Your task to perform on an android device: Find coffee shops on Maps Image 0: 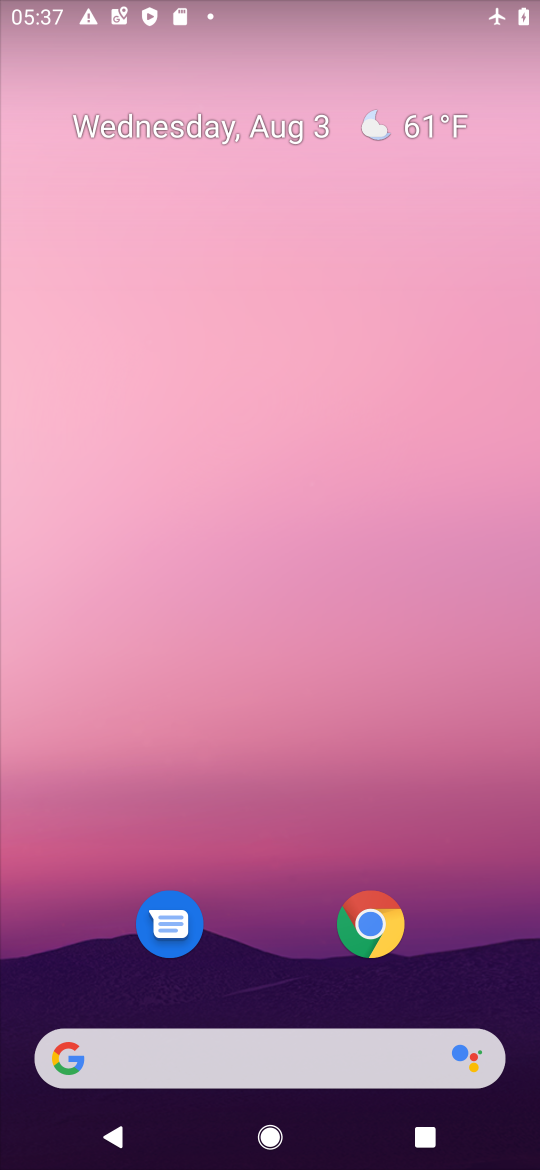
Step 0: drag from (257, 957) to (260, 469)
Your task to perform on an android device: Find coffee shops on Maps Image 1: 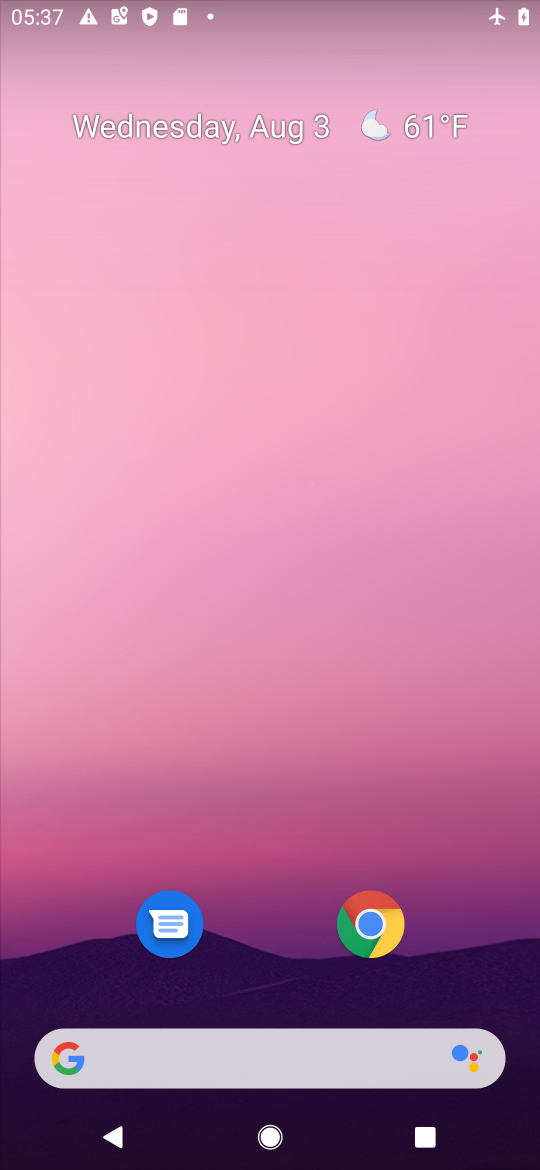
Step 1: drag from (229, 855) to (170, 250)
Your task to perform on an android device: Find coffee shops on Maps Image 2: 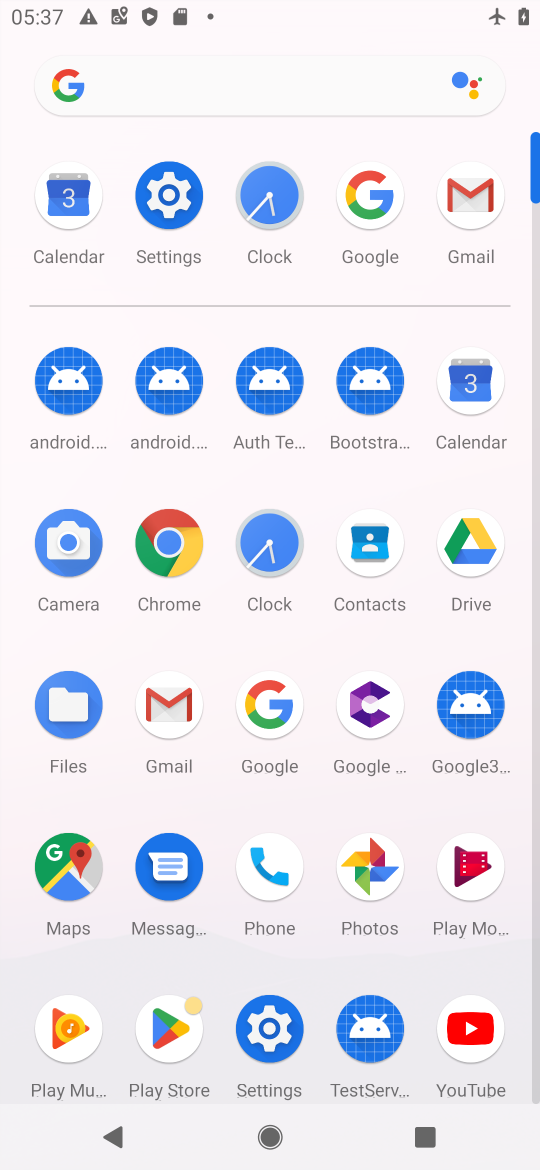
Step 2: click (52, 892)
Your task to perform on an android device: Find coffee shops on Maps Image 3: 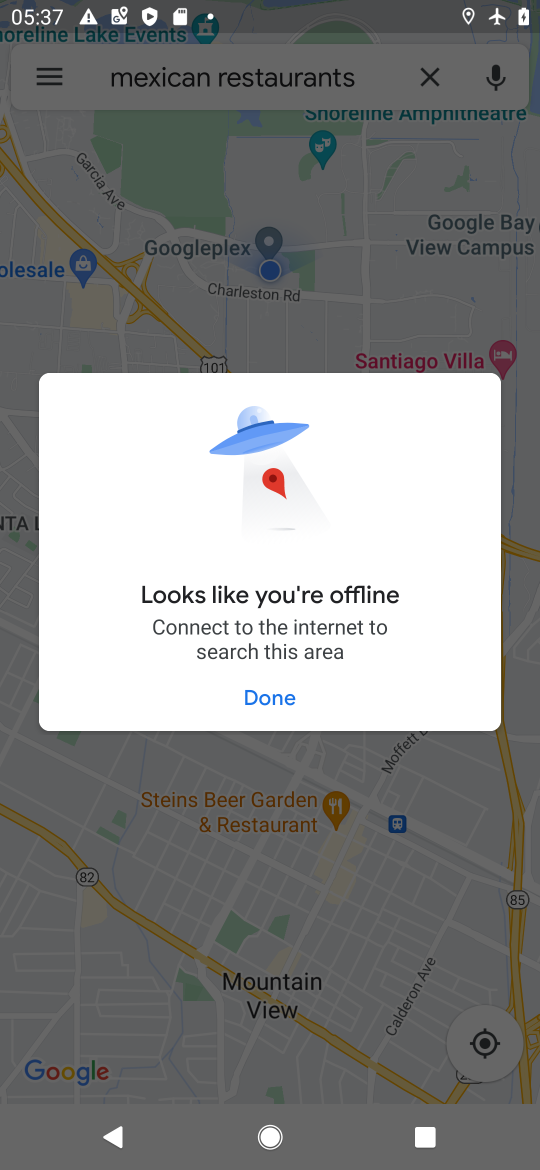
Step 3: task complete